Your task to perform on an android device: turn on improve location accuracy Image 0: 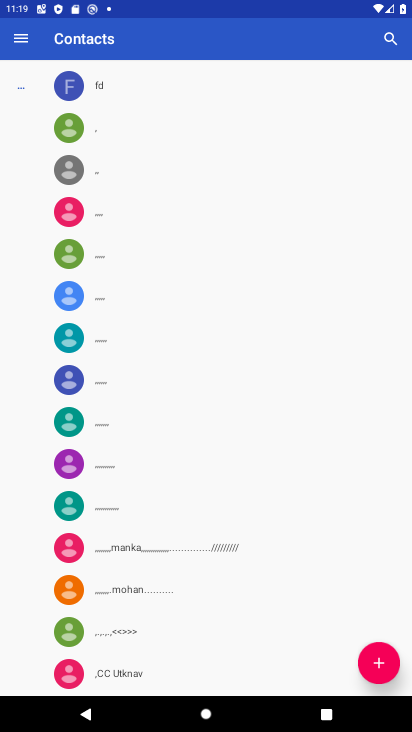
Step 0: press back button
Your task to perform on an android device: turn on improve location accuracy Image 1: 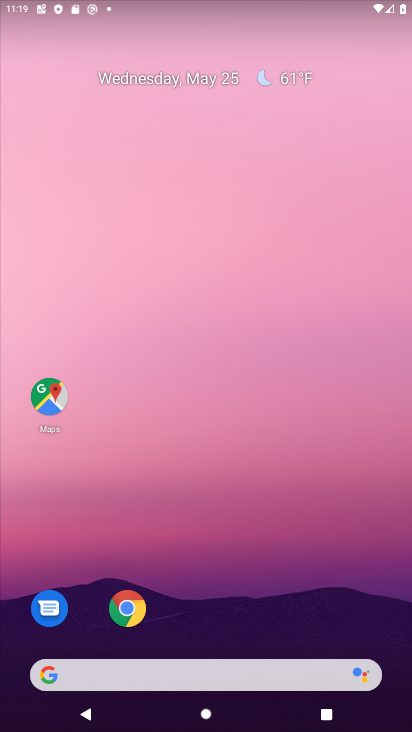
Step 1: drag from (245, 613) to (270, 105)
Your task to perform on an android device: turn on improve location accuracy Image 2: 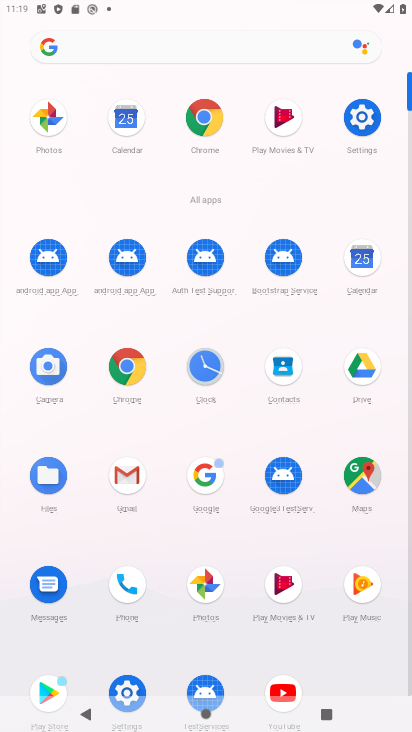
Step 2: click (365, 113)
Your task to perform on an android device: turn on improve location accuracy Image 3: 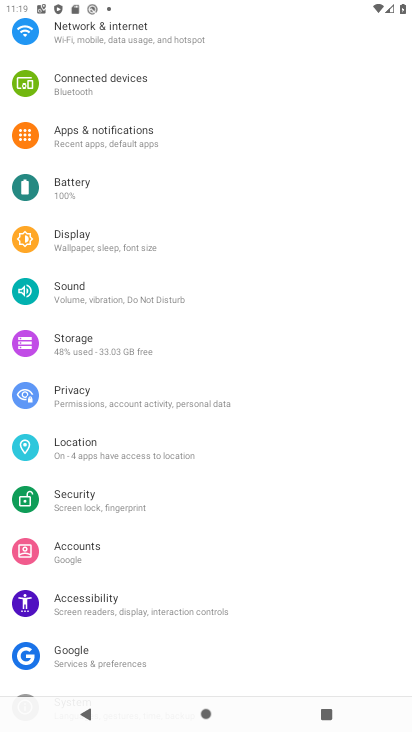
Step 3: click (73, 442)
Your task to perform on an android device: turn on improve location accuracy Image 4: 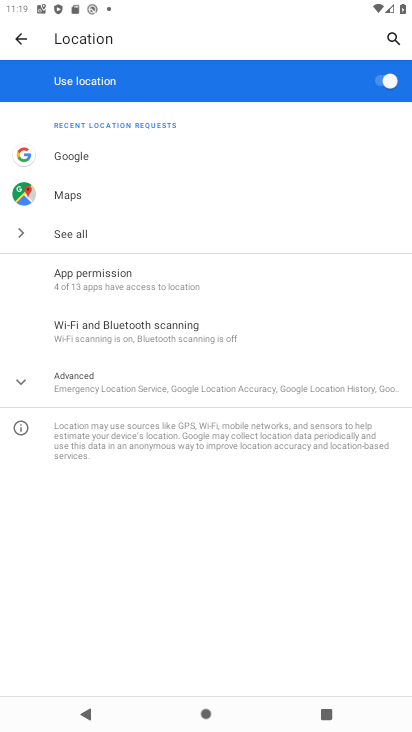
Step 4: click (77, 377)
Your task to perform on an android device: turn on improve location accuracy Image 5: 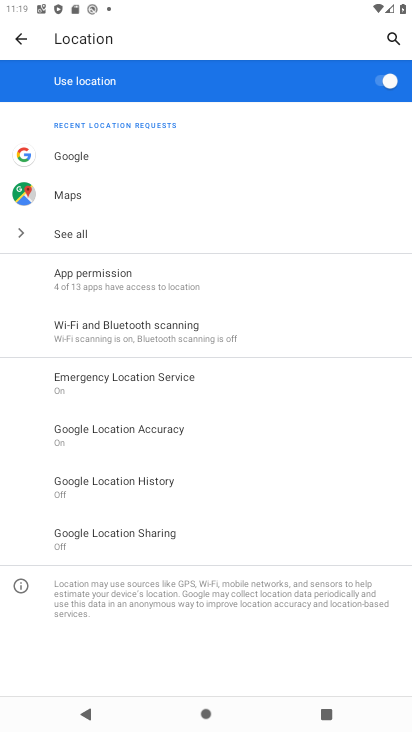
Step 5: click (135, 434)
Your task to perform on an android device: turn on improve location accuracy Image 6: 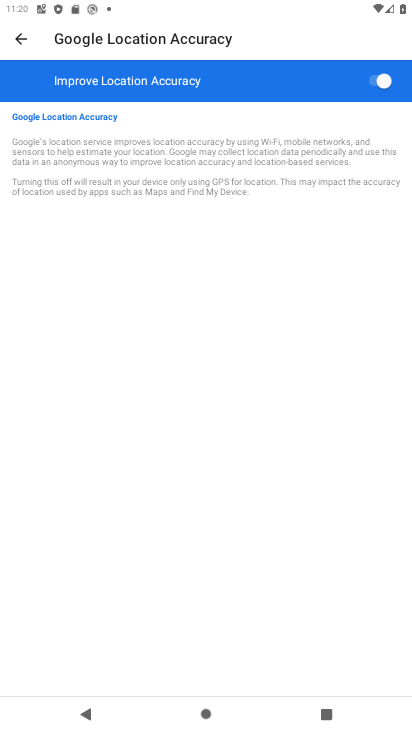
Step 6: task complete